Your task to perform on an android device: set the timer Image 0: 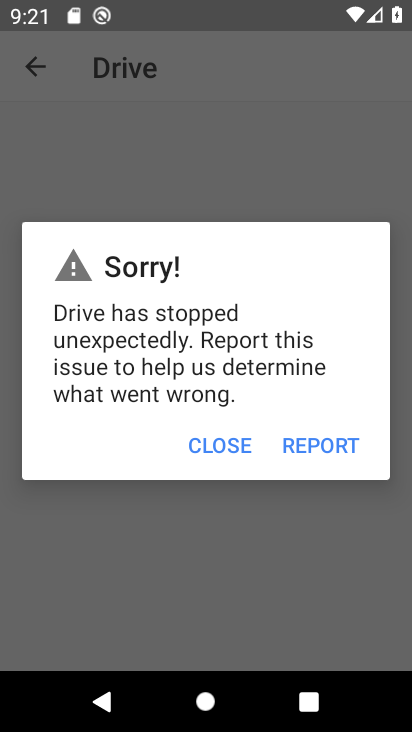
Step 0: press home button
Your task to perform on an android device: set the timer Image 1: 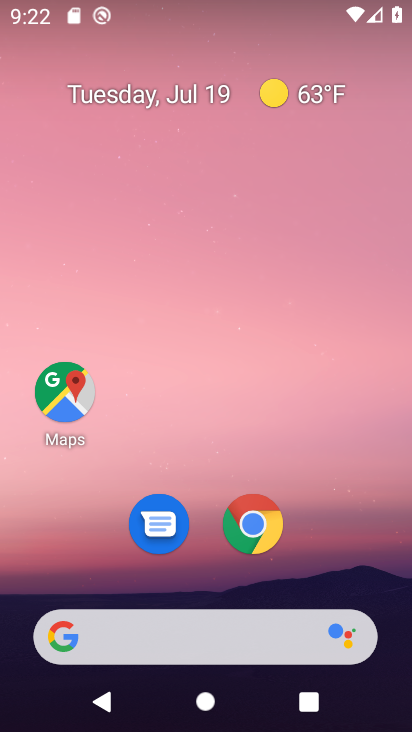
Step 1: drag from (229, 518) to (272, 11)
Your task to perform on an android device: set the timer Image 2: 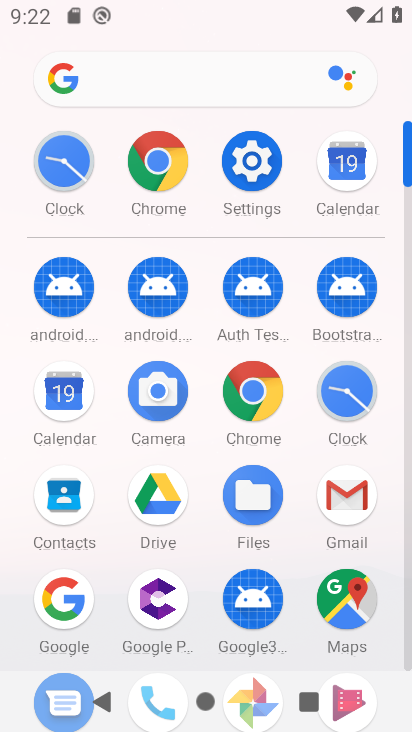
Step 2: click (347, 394)
Your task to perform on an android device: set the timer Image 3: 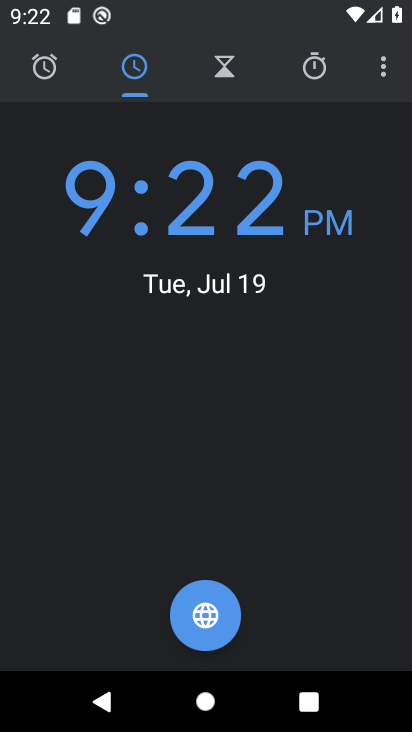
Step 3: click (232, 79)
Your task to perform on an android device: set the timer Image 4: 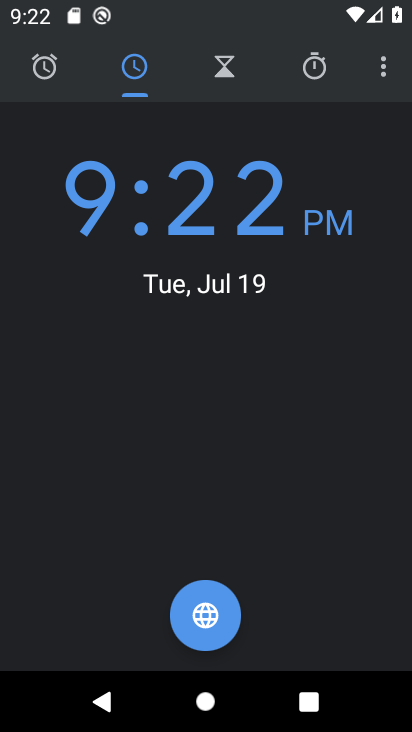
Step 4: click (230, 83)
Your task to perform on an android device: set the timer Image 5: 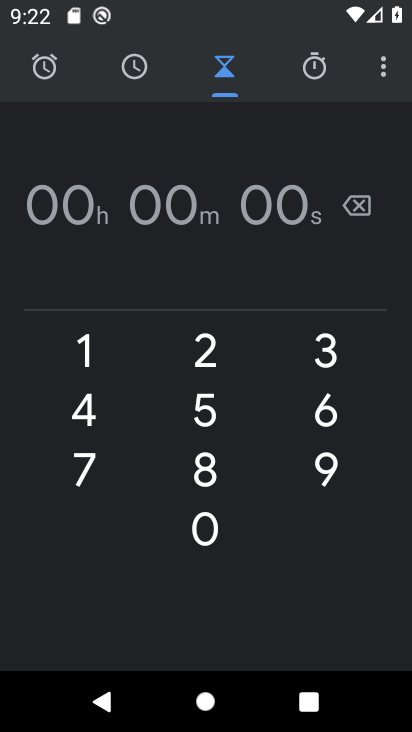
Step 5: click (84, 416)
Your task to perform on an android device: set the timer Image 6: 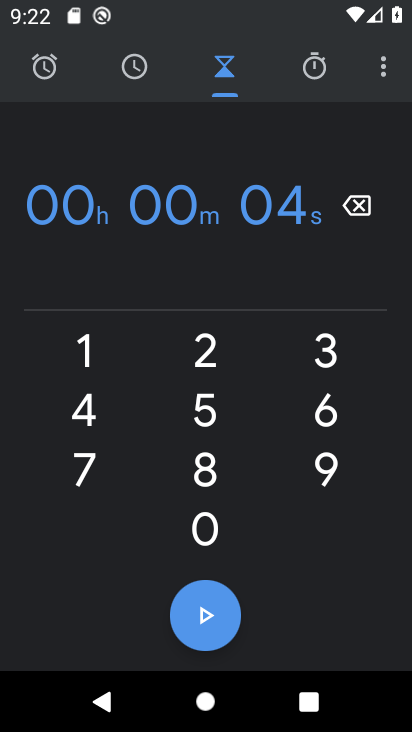
Step 6: click (200, 419)
Your task to perform on an android device: set the timer Image 7: 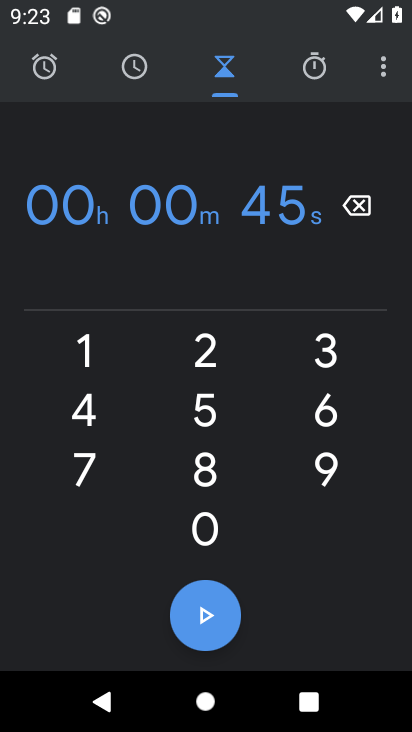
Step 7: click (206, 617)
Your task to perform on an android device: set the timer Image 8: 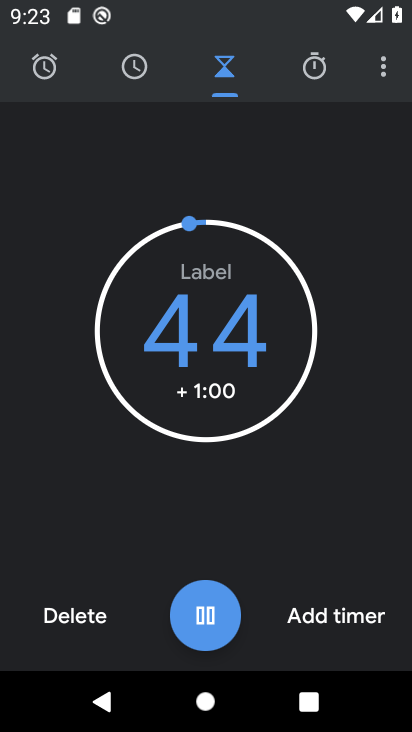
Step 8: click (206, 617)
Your task to perform on an android device: set the timer Image 9: 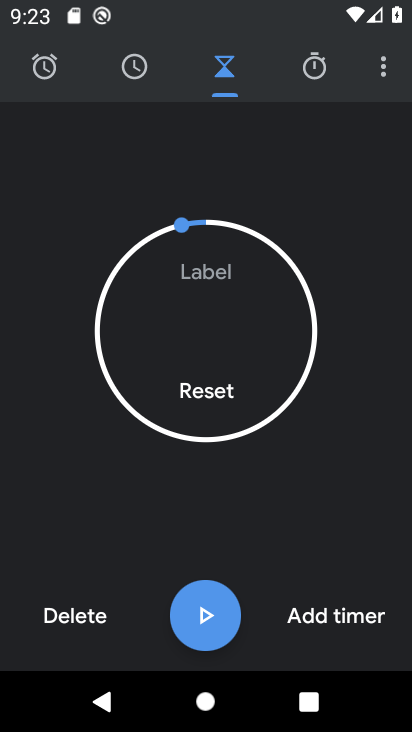
Step 9: task complete